Your task to perform on an android device: Open Reddit.com Image 0: 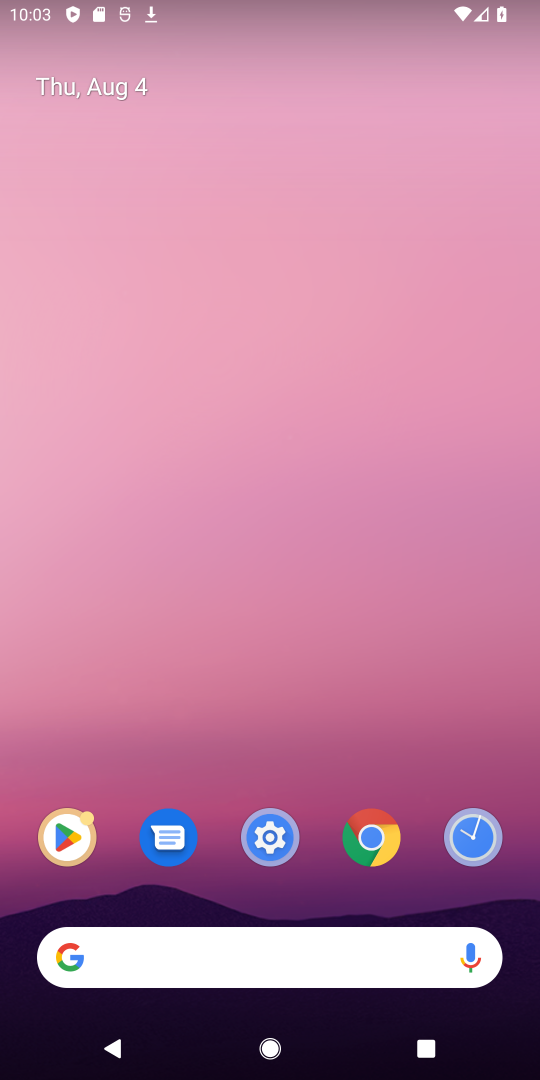
Step 0: click (373, 832)
Your task to perform on an android device: Open Reddit.com Image 1: 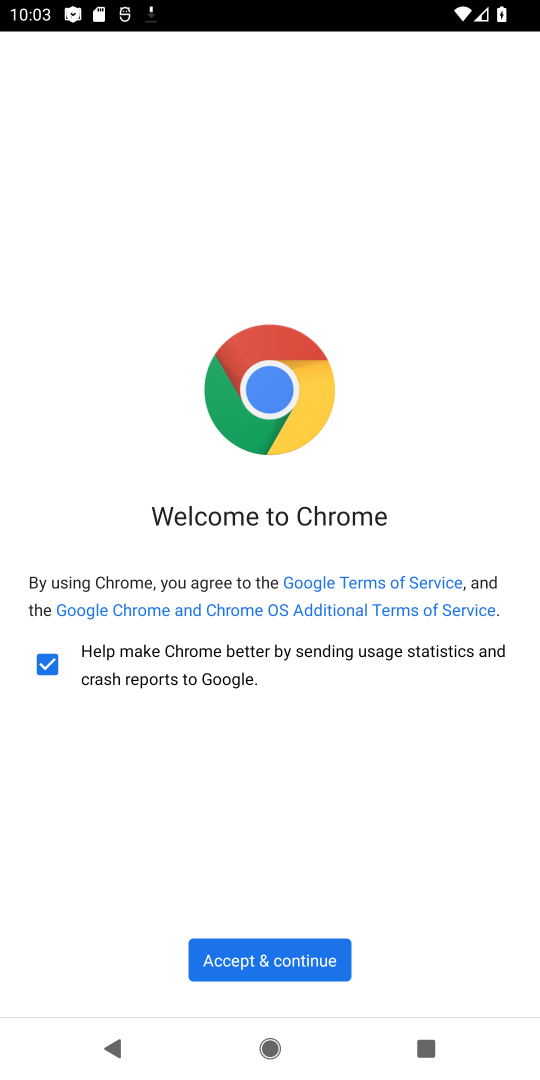
Step 1: click (265, 932)
Your task to perform on an android device: Open Reddit.com Image 2: 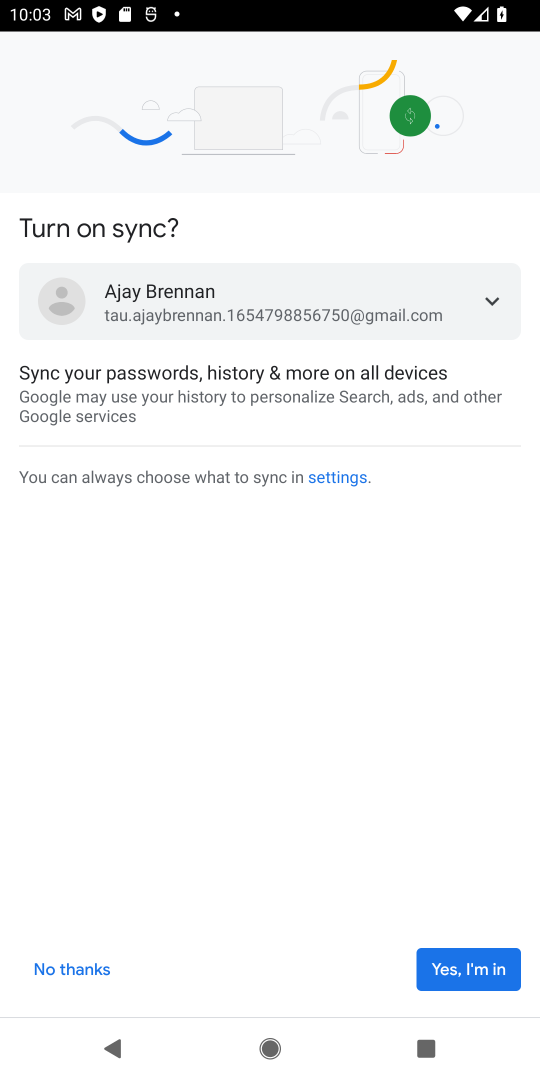
Step 2: click (472, 961)
Your task to perform on an android device: Open Reddit.com Image 3: 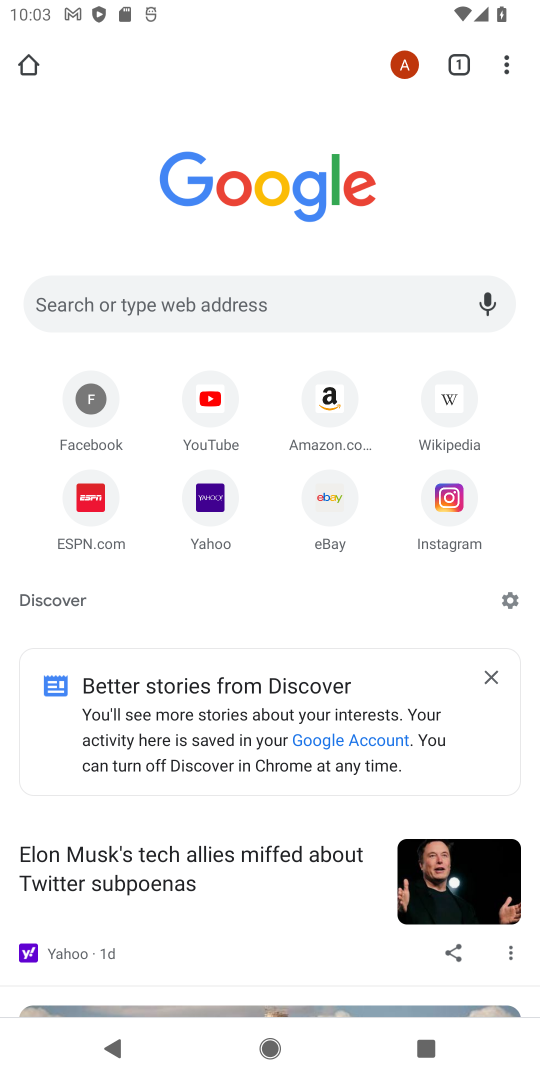
Step 3: click (335, 292)
Your task to perform on an android device: Open Reddit.com Image 4: 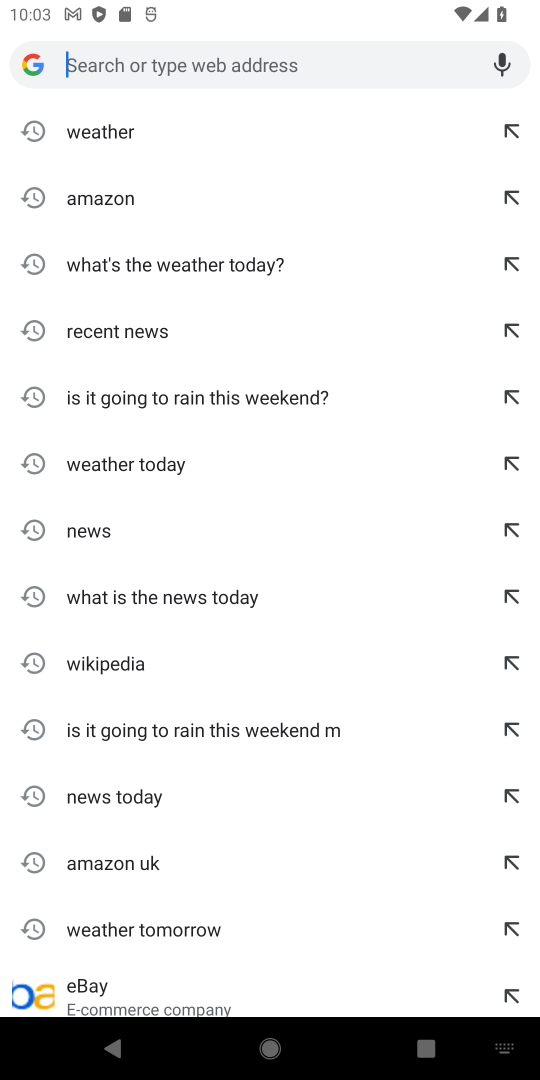
Step 4: type " Reddit.com "
Your task to perform on an android device: Open Reddit.com Image 5: 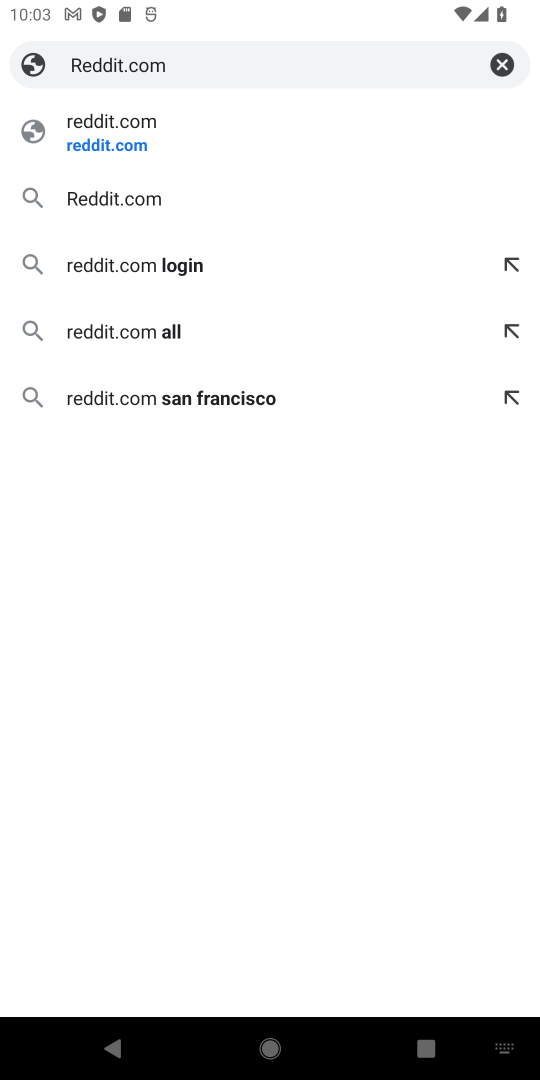
Step 5: click (127, 148)
Your task to perform on an android device: Open Reddit.com Image 6: 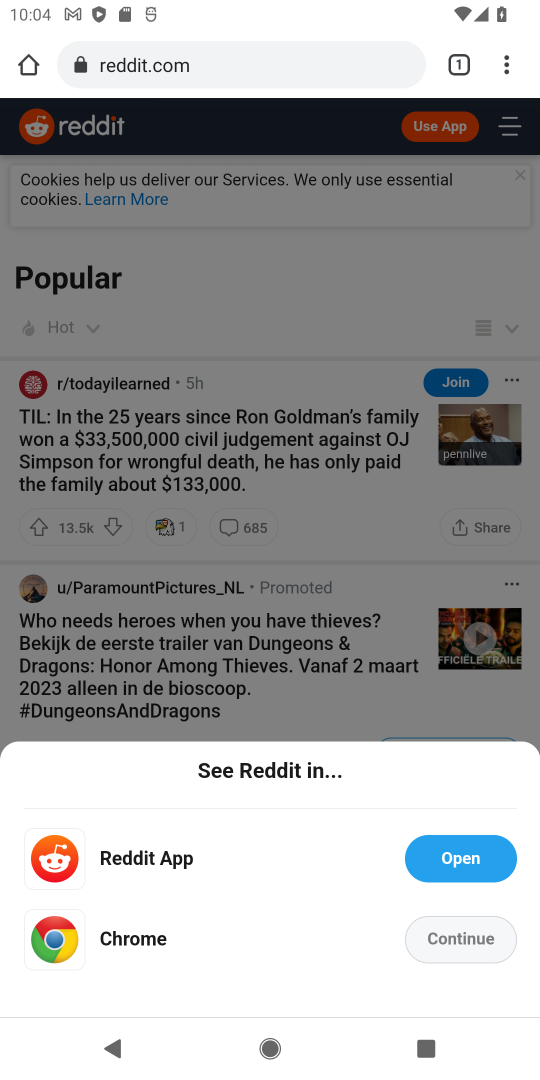
Step 6: task complete